Your task to perform on an android device: turn pop-ups on in chrome Image 0: 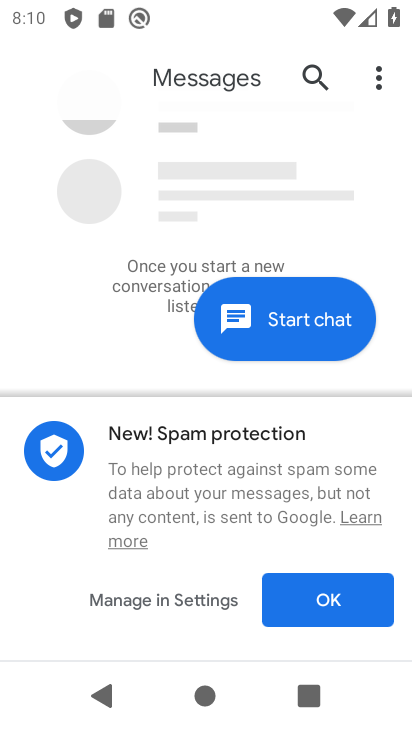
Step 0: press home button
Your task to perform on an android device: turn pop-ups on in chrome Image 1: 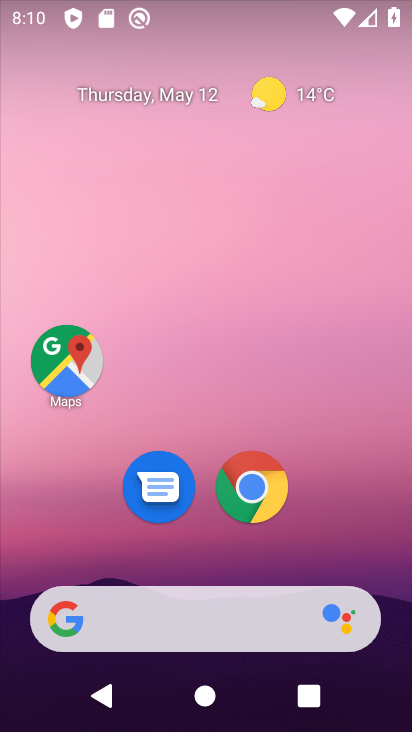
Step 1: click (255, 490)
Your task to perform on an android device: turn pop-ups on in chrome Image 2: 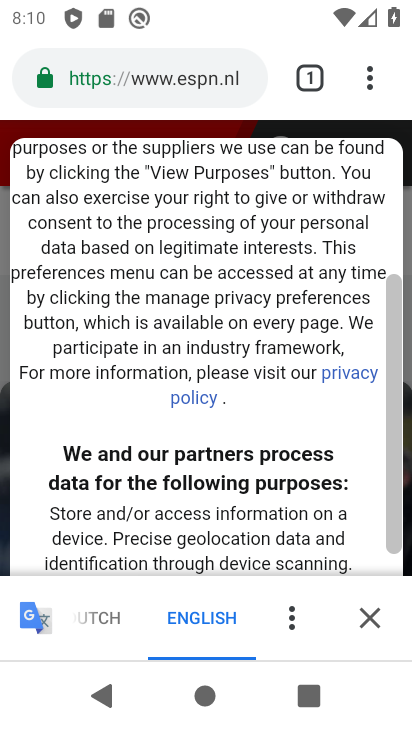
Step 2: click (371, 81)
Your task to perform on an android device: turn pop-ups on in chrome Image 3: 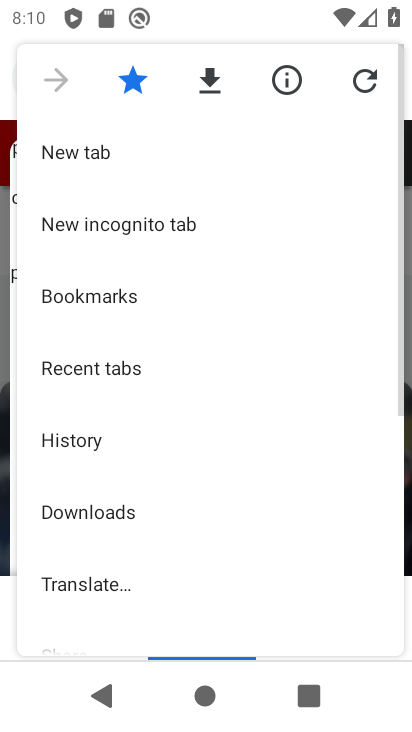
Step 3: drag from (149, 515) to (88, 183)
Your task to perform on an android device: turn pop-ups on in chrome Image 4: 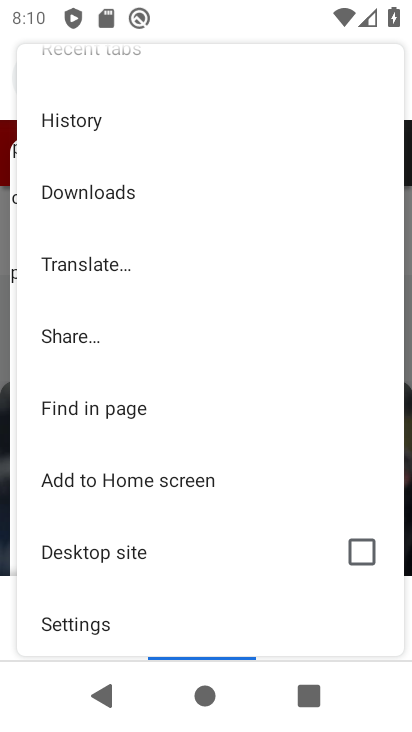
Step 4: click (85, 626)
Your task to perform on an android device: turn pop-ups on in chrome Image 5: 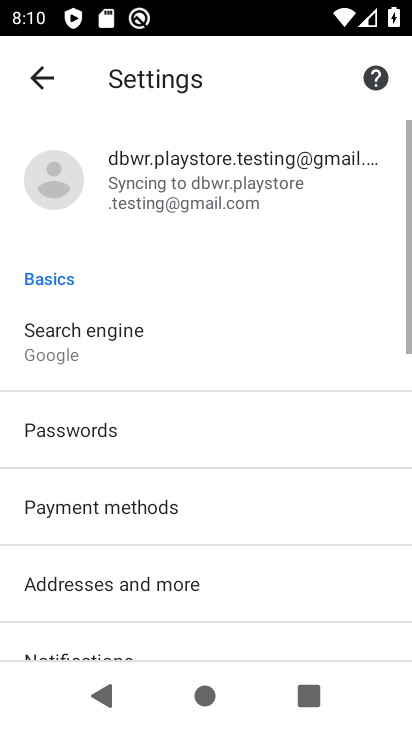
Step 5: drag from (205, 572) to (191, 165)
Your task to perform on an android device: turn pop-ups on in chrome Image 6: 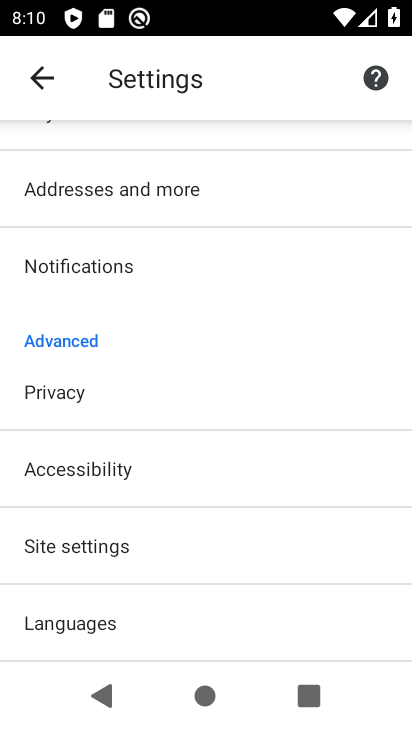
Step 6: click (85, 553)
Your task to perform on an android device: turn pop-ups on in chrome Image 7: 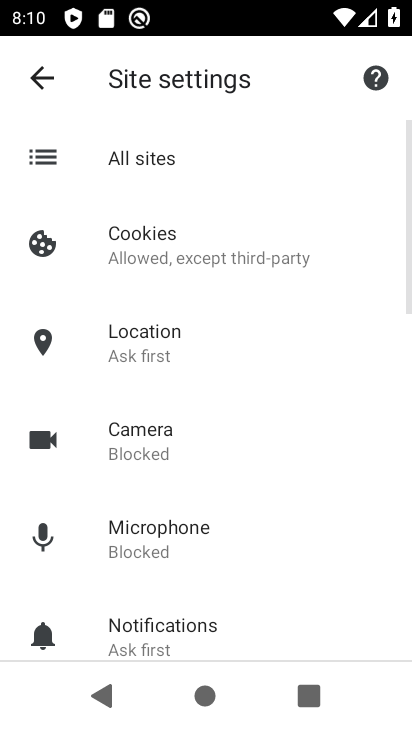
Step 7: drag from (206, 565) to (224, 219)
Your task to perform on an android device: turn pop-ups on in chrome Image 8: 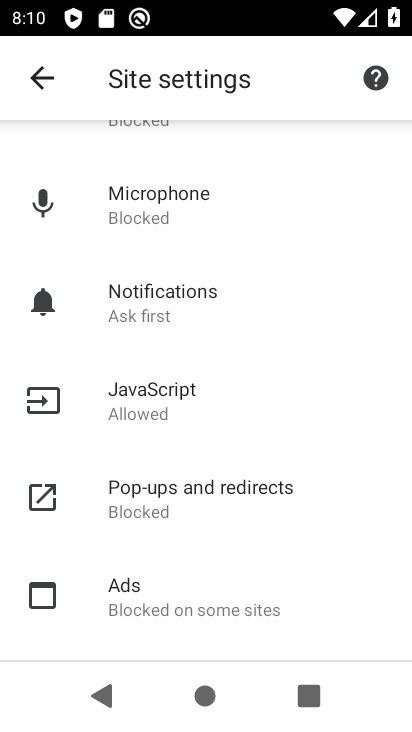
Step 8: click (134, 489)
Your task to perform on an android device: turn pop-ups on in chrome Image 9: 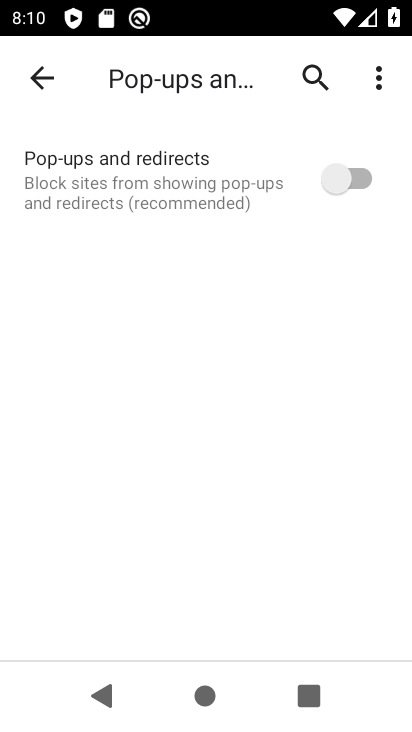
Step 9: click (349, 188)
Your task to perform on an android device: turn pop-ups on in chrome Image 10: 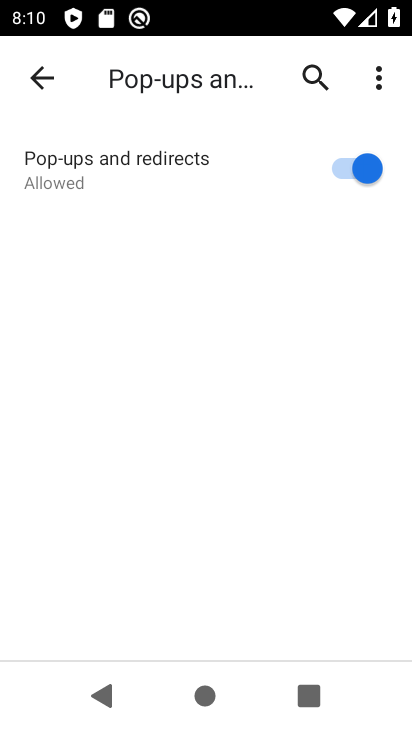
Step 10: task complete